Your task to perform on an android device: Open my contact list Image 0: 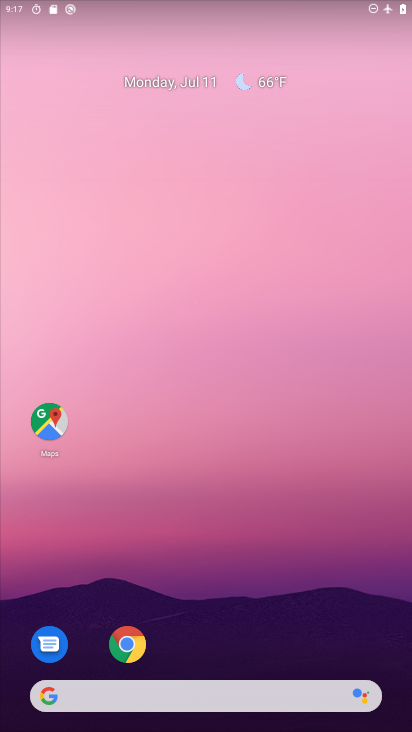
Step 0: drag from (273, 647) to (258, 157)
Your task to perform on an android device: Open my contact list Image 1: 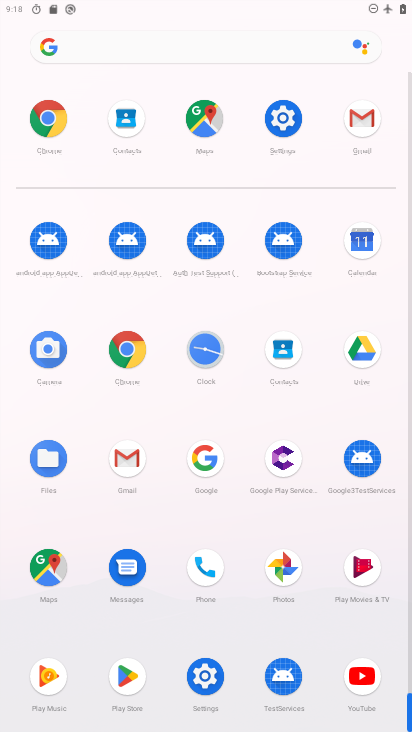
Step 1: click (288, 346)
Your task to perform on an android device: Open my contact list Image 2: 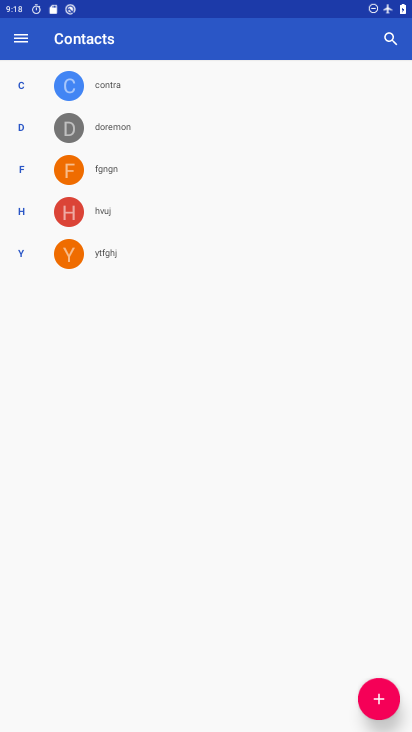
Step 2: task complete